Your task to perform on an android device: Search for "amazon basics triple a" on ebay.com, select the first entry, add it to the cart, then select checkout. Image 0: 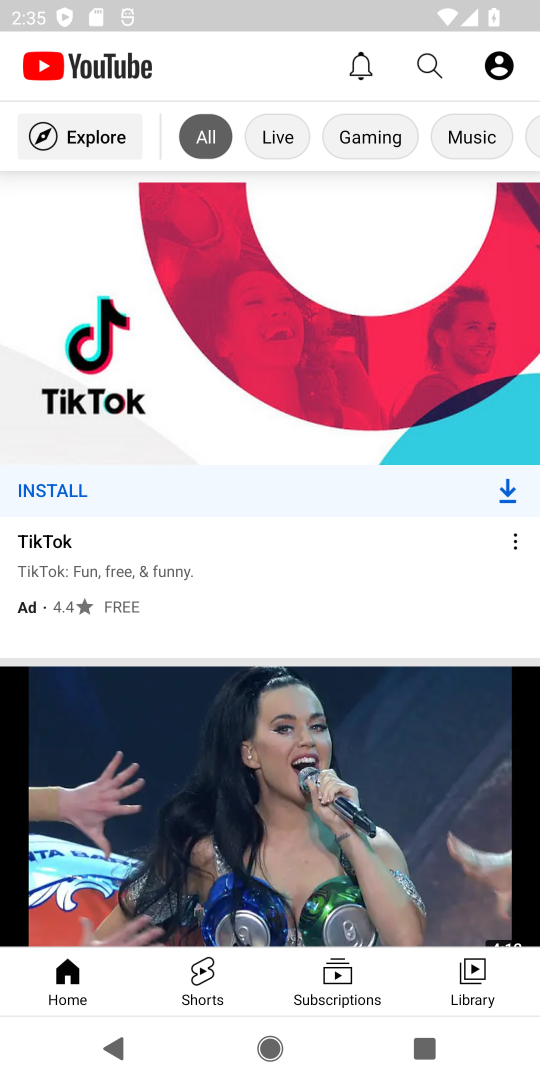
Step 0: press home button
Your task to perform on an android device: Search for "amazon basics triple a" on ebay.com, select the first entry, add it to the cart, then select checkout. Image 1: 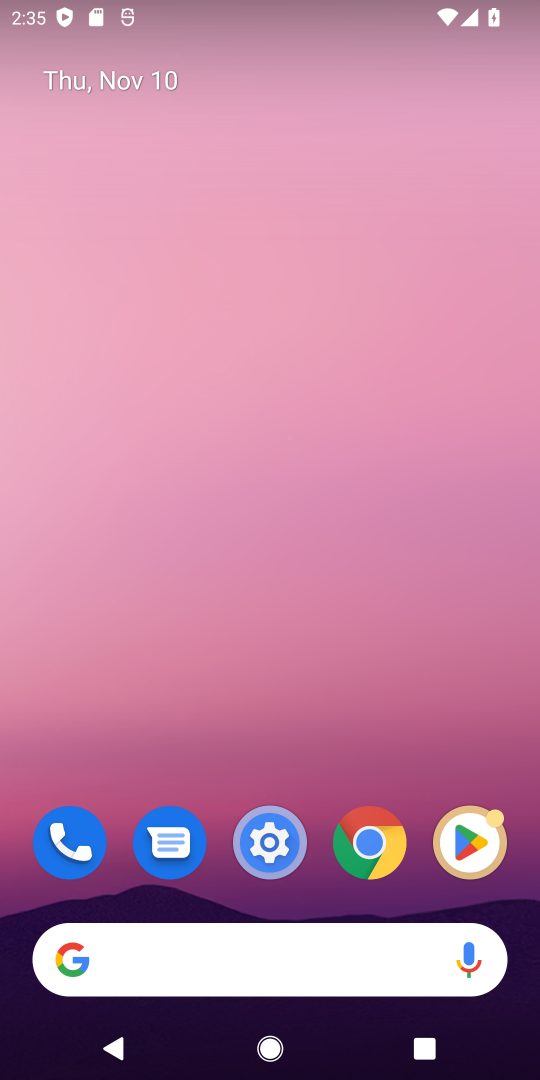
Step 1: click (117, 952)
Your task to perform on an android device: Search for "amazon basics triple a" on ebay.com, select the first entry, add it to the cart, then select checkout. Image 2: 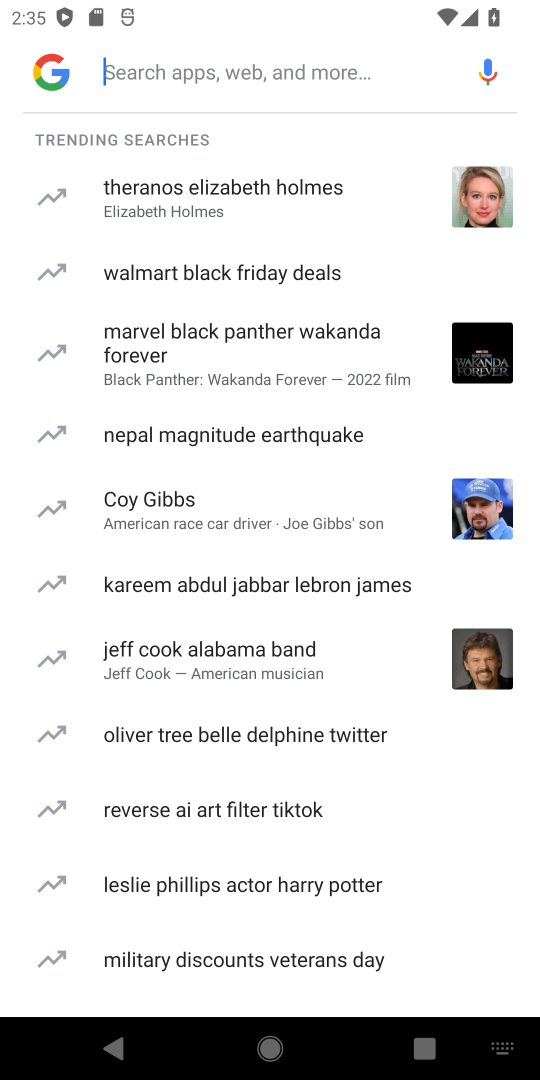
Step 2: type "ebay.com"
Your task to perform on an android device: Search for "amazon basics triple a" on ebay.com, select the first entry, add it to the cart, then select checkout. Image 3: 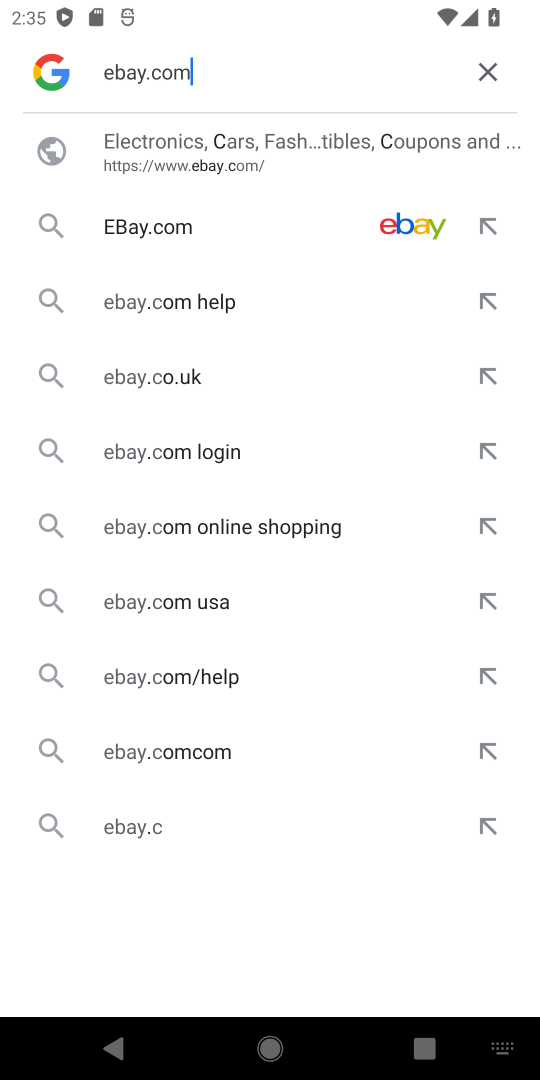
Step 3: press enter
Your task to perform on an android device: Search for "amazon basics triple a" on ebay.com, select the first entry, add it to the cart, then select checkout. Image 4: 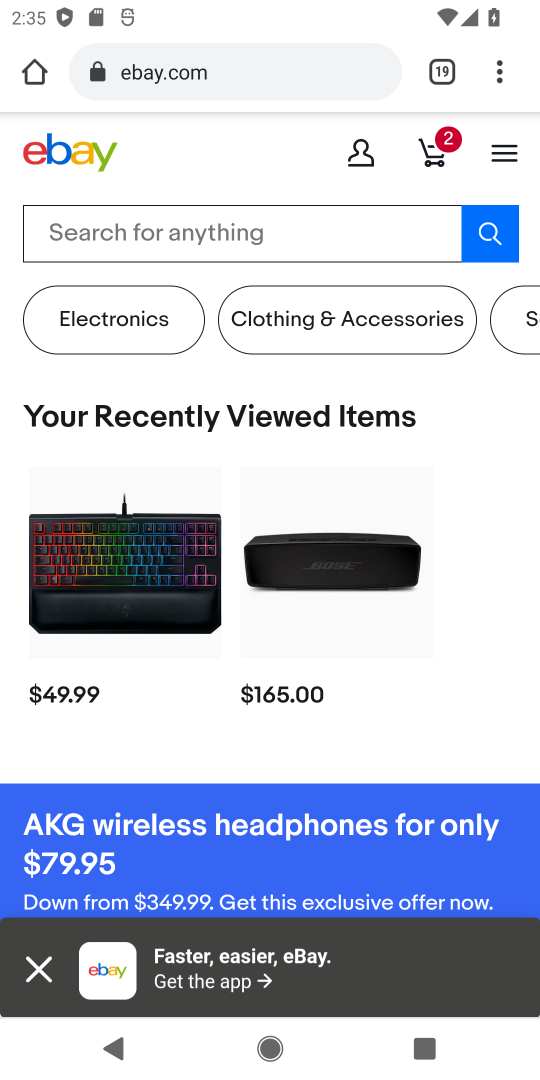
Step 4: click (74, 231)
Your task to perform on an android device: Search for "amazon basics triple a" on ebay.com, select the first entry, add it to the cart, then select checkout. Image 5: 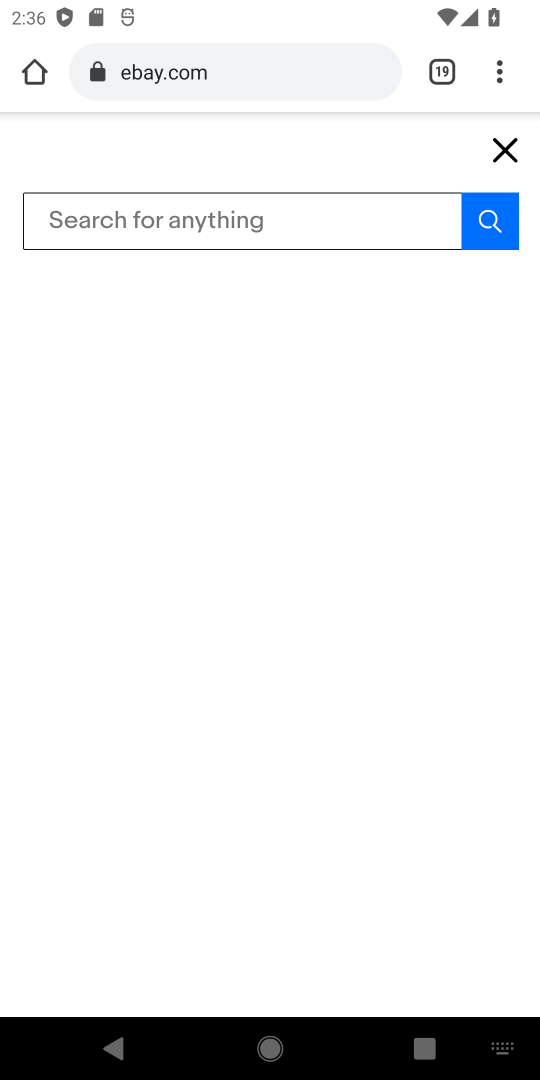
Step 5: type "amazon basics triple a"
Your task to perform on an android device: Search for "amazon basics triple a" on ebay.com, select the first entry, add it to the cart, then select checkout. Image 6: 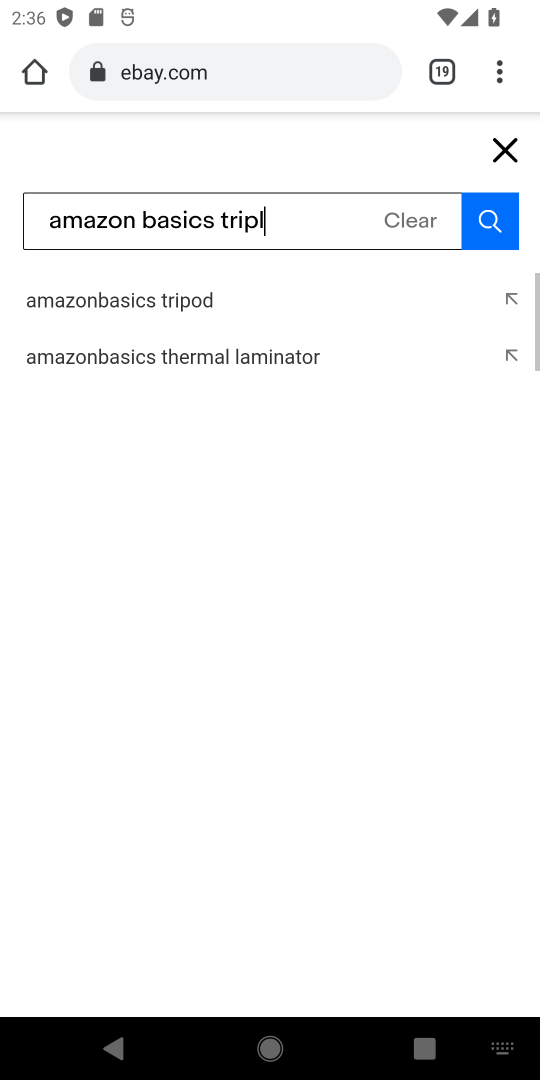
Step 6: press enter
Your task to perform on an android device: Search for "amazon basics triple a" on ebay.com, select the first entry, add it to the cart, then select checkout. Image 7: 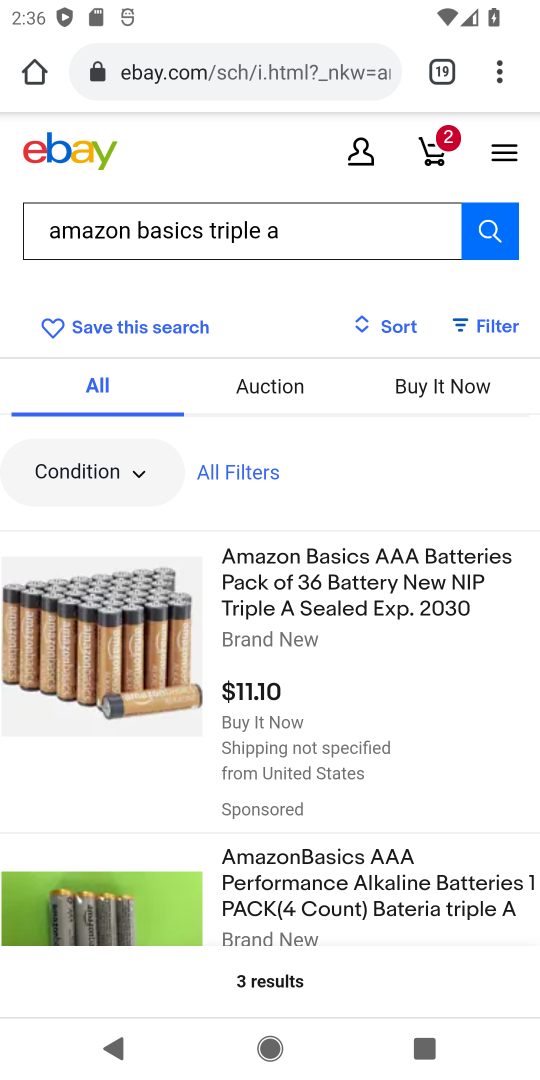
Step 7: click (308, 578)
Your task to perform on an android device: Search for "amazon basics triple a" on ebay.com, select the first entry, add it to the cart, then select checkout. Image 8: 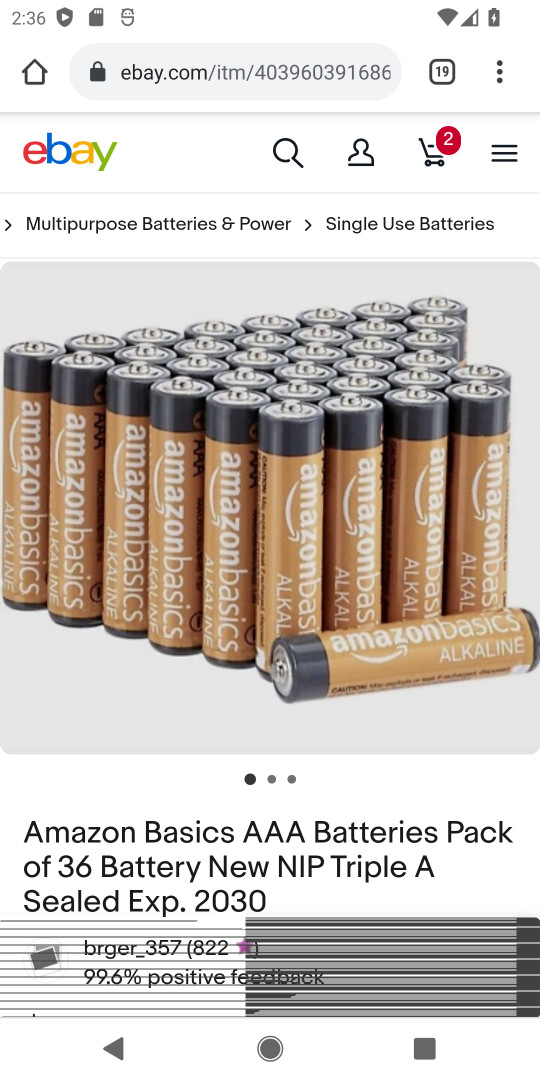
Step 8: drag from (332, 844) to (338, 515)
Your task to perform on an android device: Search for "amazon basics triple a" on ebay.com, select the first entry, add it to the cart, then select checkout. Image 9: 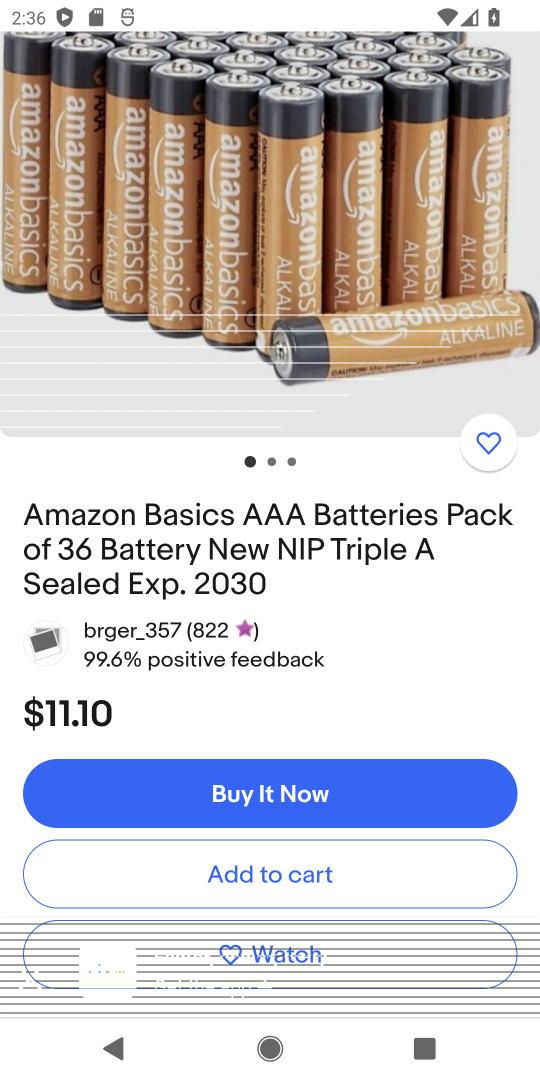
Step 9: drag from (355, 772) to (395, 361)
Your task to perform on an android device: Search for "amazon basics triple a" on ebay.com, select the first entry, add it to the cart, then select checkout. Image 10: 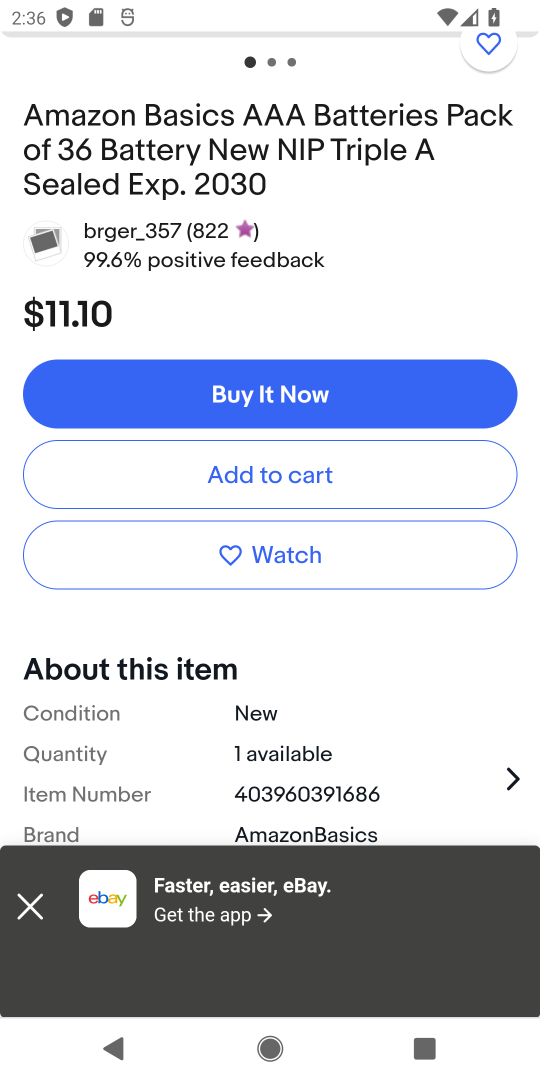
Step 10: click (256, 482)
Your task to perform on an android device: Search for "amazon basics triple a" on ebay.com, select the first entry, add it to the cart, then select checkout. Image 11: 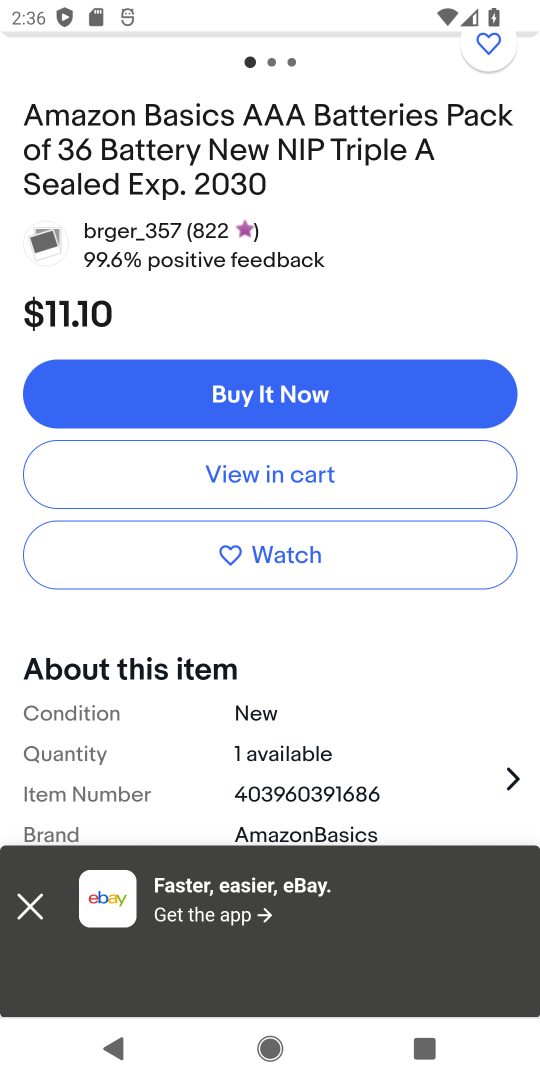
Step 11: click (256, 482)
Your task to perform on an android device: Search for "amazon basics triple a" on ebay.com, select the first entry, add it to the cart, then select checkout. Image 12: 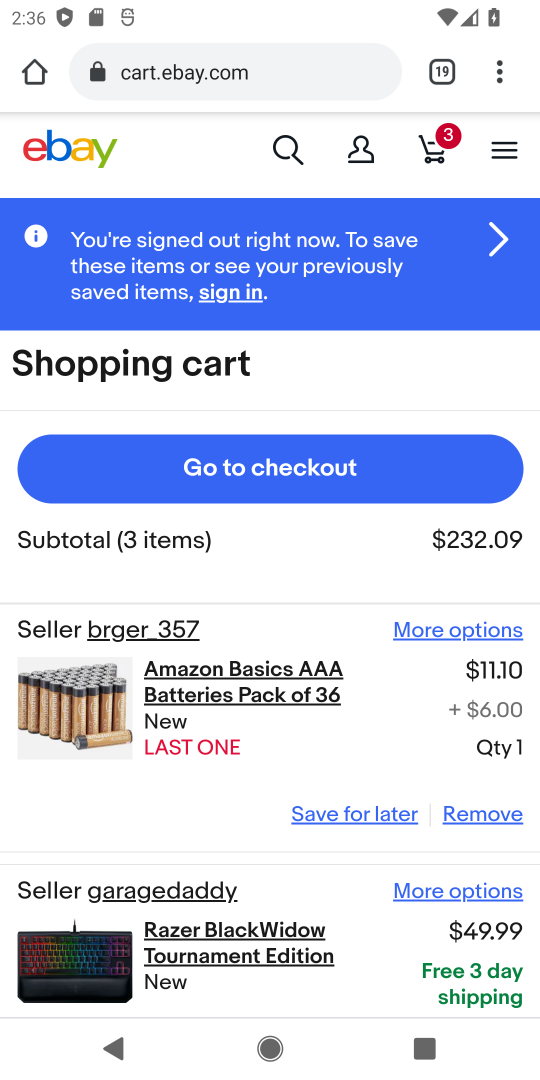
Step 12: click (318, 471)
Your task to perform on an android device: Search for "amazon basics triple a" on ebay.com, select the first entry, add it to the cart, then select checkout. Image 13: 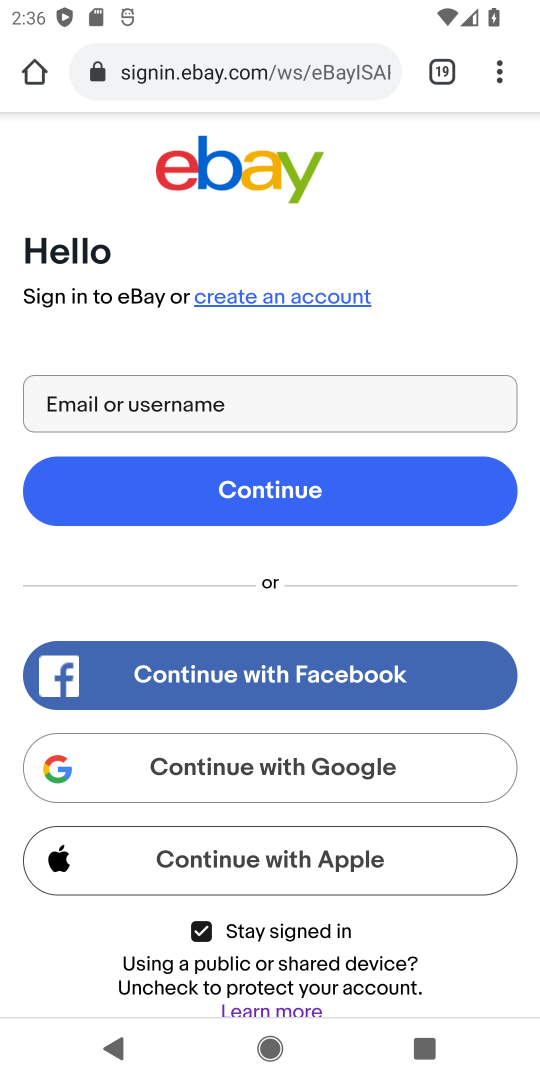
Step 13: task complete